Your task to perform on an android device: set an alarm Image 0: 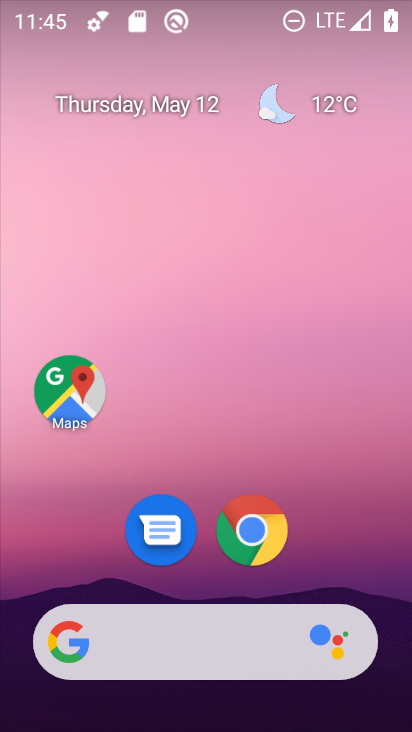
Step 0: press home button
Your task to perform on an android device: set an alarm Image 1: 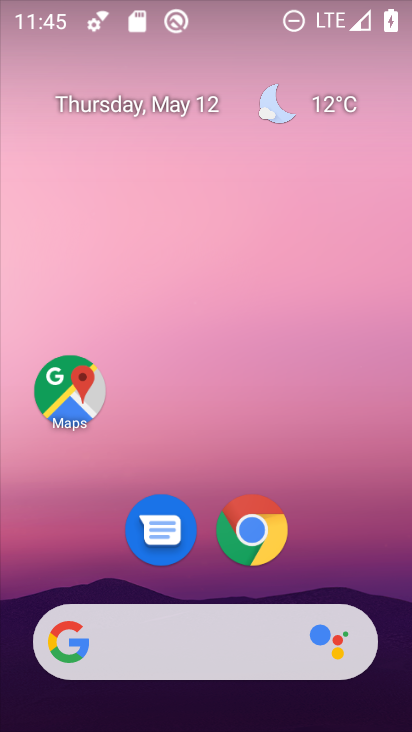
Step 1: drag from (229, 623) to (317, 154)
Your task to perform on an android device: set an alarm Image 2: 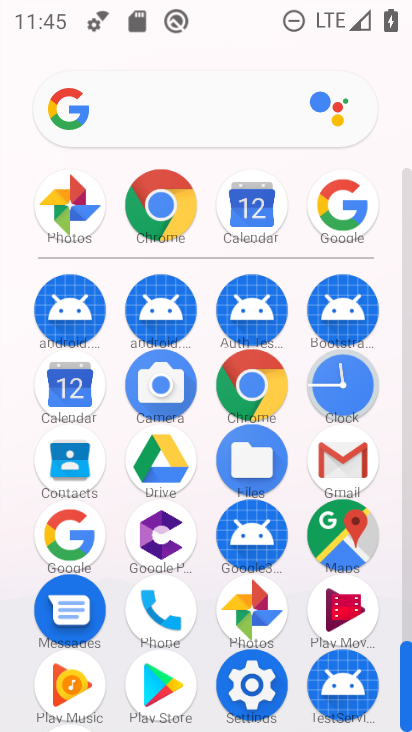
Step 2: click (334, 398)
Your task to perform on an android device: set an alarm Image 3: 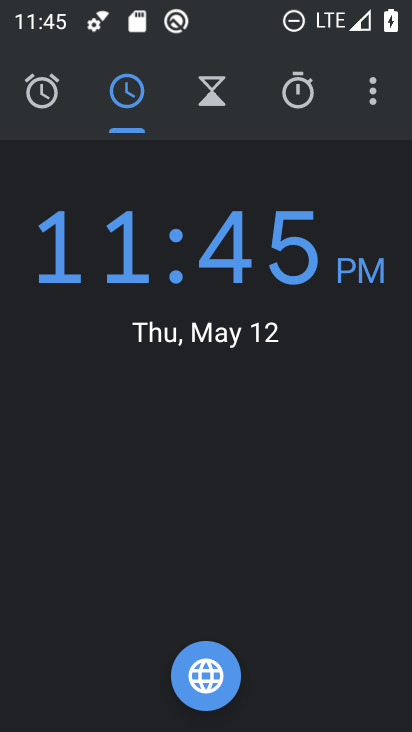
Step 3: click (36, 83)
Your task to perform on an android device: set an alarm Image 4: 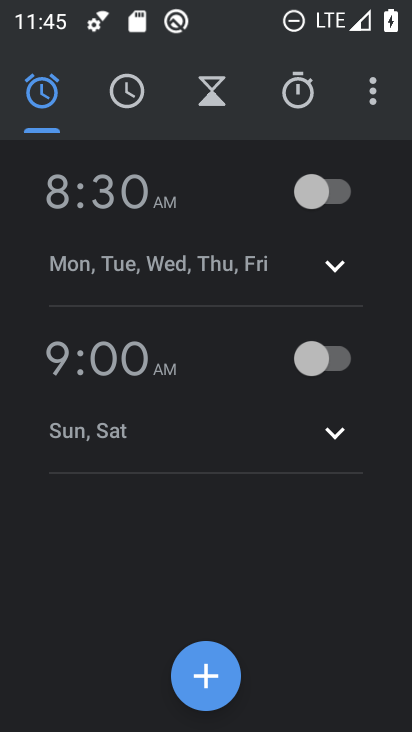
Step 4: click (102, 195)
Your task to perform on an android device: set an alarm Image 5: 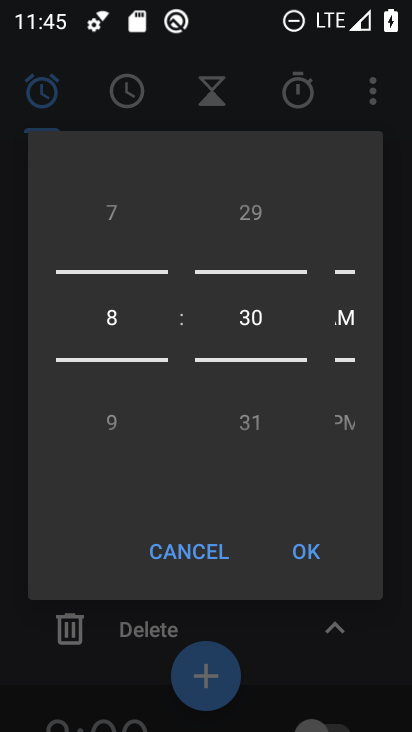
Step 5: click (301, 545)
Your task to perform on an android device: set an alarm Image 6: 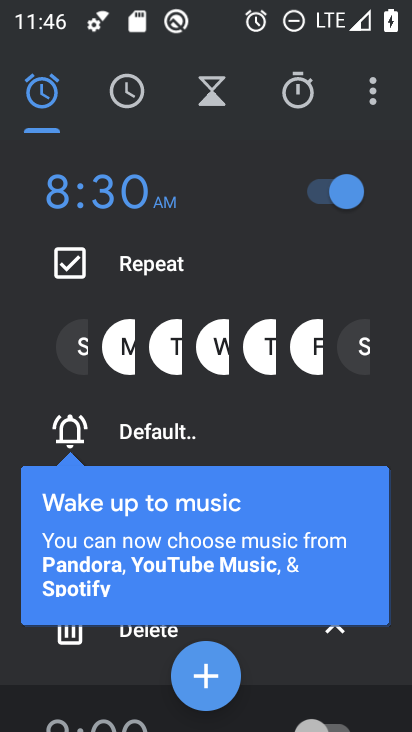
Step 6: task complete